Your task to perform on an android device: What's the weather today? Image 0: 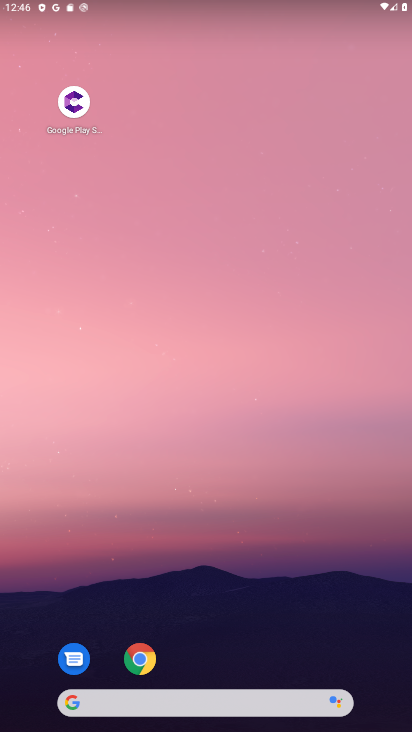
Step 0: click (242, 697)
Your task to perform on an android device: What's the weather today? Image 1: 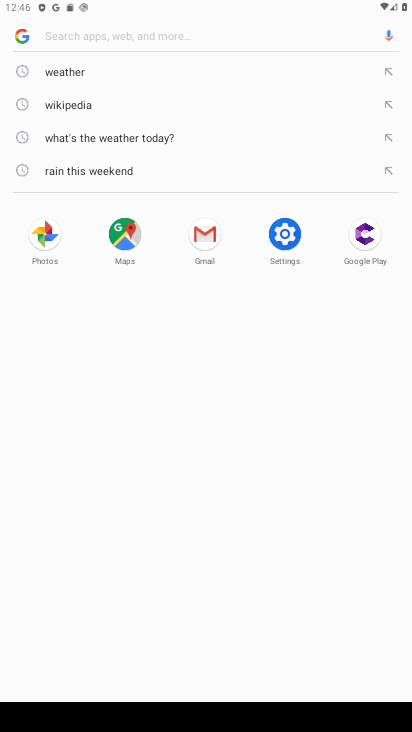
Step 1: type "what's the weather today?"
Your task to perform on an android device: What's the weather today? Image 2: 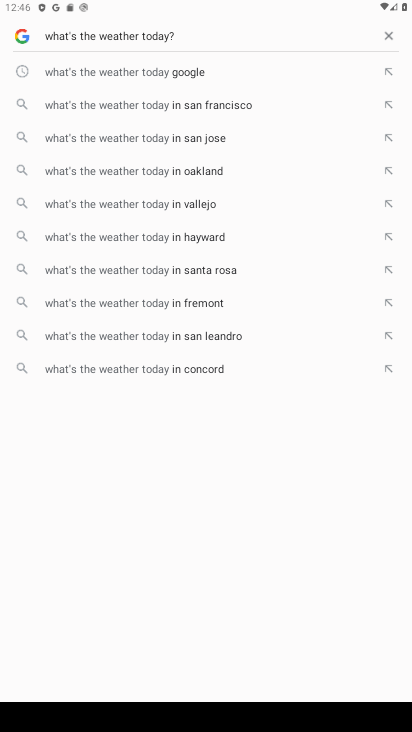
Step 2: click (142, 69)
Your task to perform on an android device: What's the weather today? Image 3: 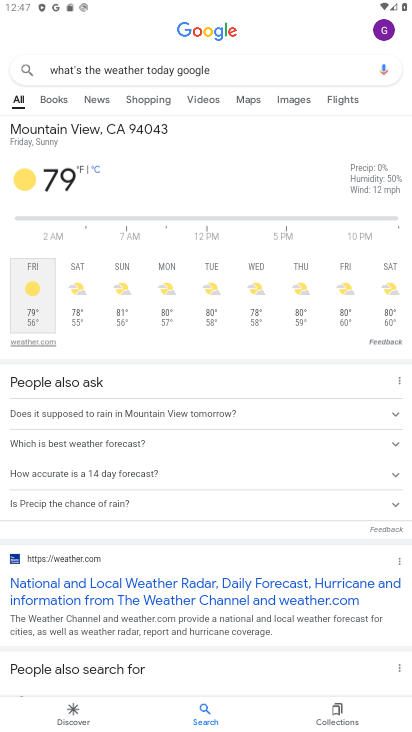
Step 3: task complete